Your task to perform on an android device: Do I have any events tomorrow? Image 0: 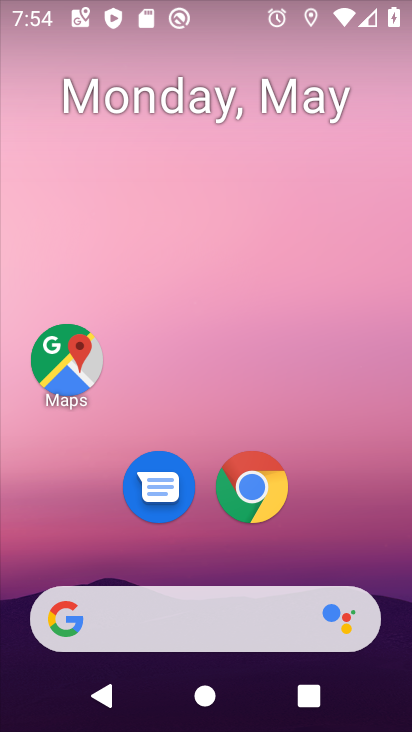
Step 0: press home button
Your task to perform on an android device: Do I have any events tomorrow? Image 1: 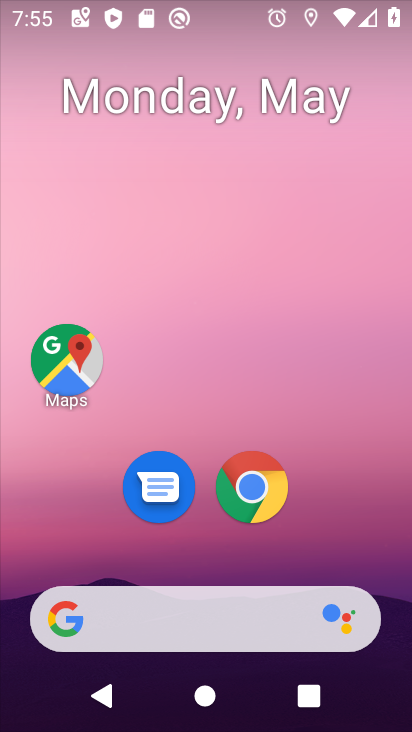
Step 1: drag from (330, 560) to (309, 44)
Your task to perform on an android device: Do I have any events tomorrow? Image 2: 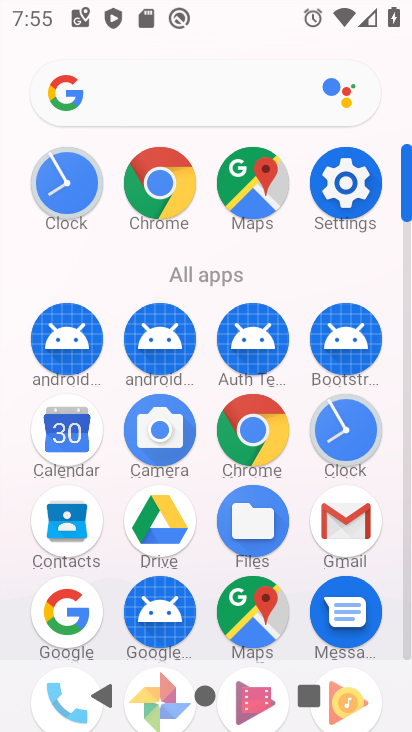
Step 2: click (64, 446)
Your task to perform on an android device: Do I have any events tomorrow? Image 3: 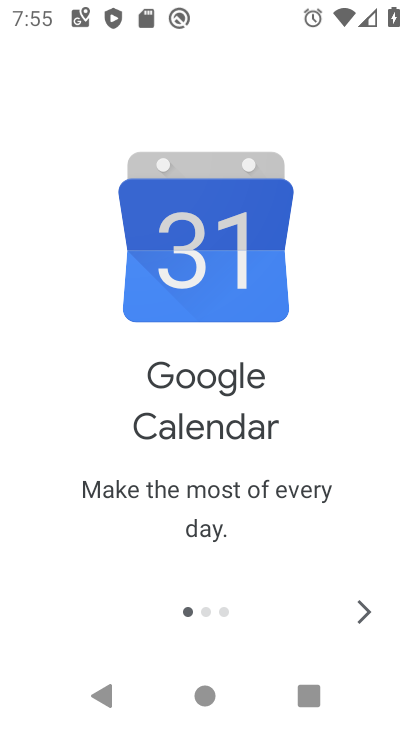
Step 3: click (359, 616)
Your task to perform on an android device: Do I have any events tomorrow? Image 4: 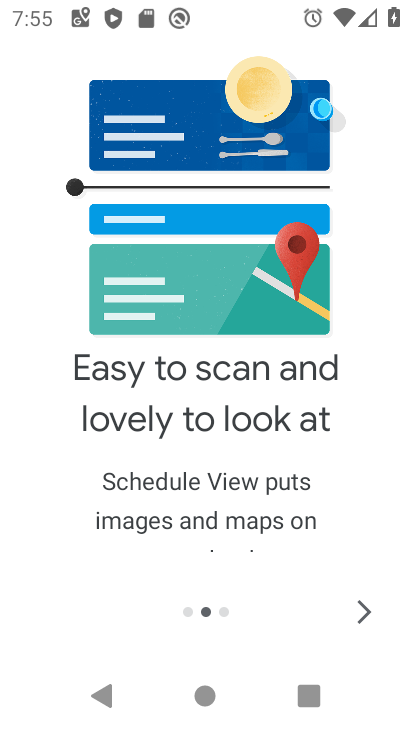
Step 4: click (368, 614)
Your task to perform on an android device: Do I have any events tomorrow? Image 5: 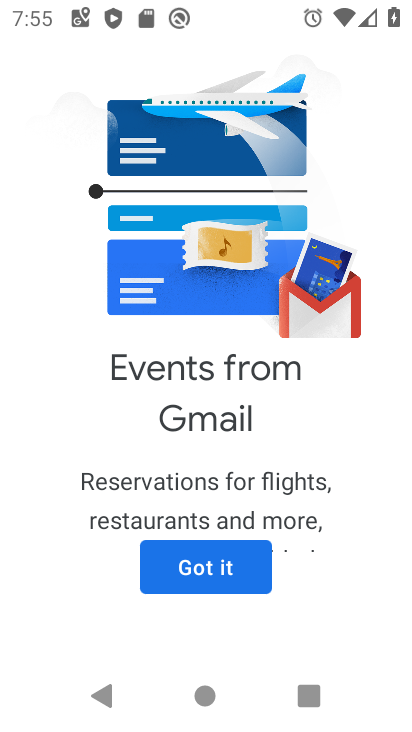
Step 5: click (205, 561)
Your task to perform on an android device: Do I have any events tomorrow? Image 6: 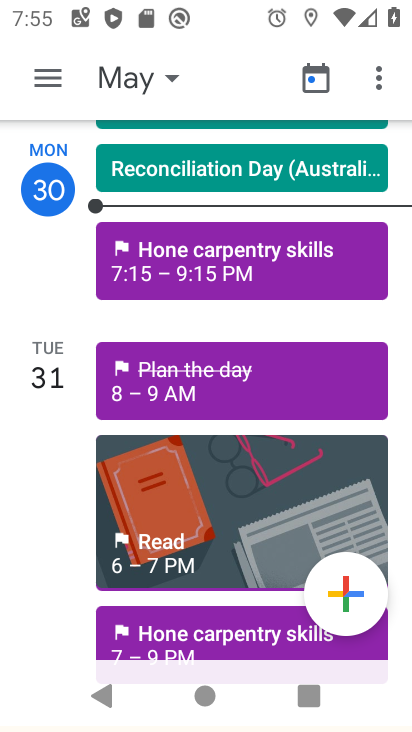
Step 6: task complete